Your task to perform on an android device: See recent photos Image 0: 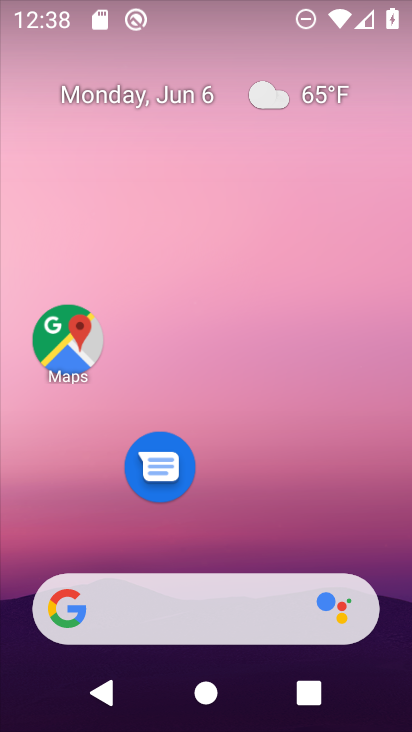
Step 0: drag from (336, 480) to (337, 11)
Your task to perform on an android device: See recent photos Image 1: 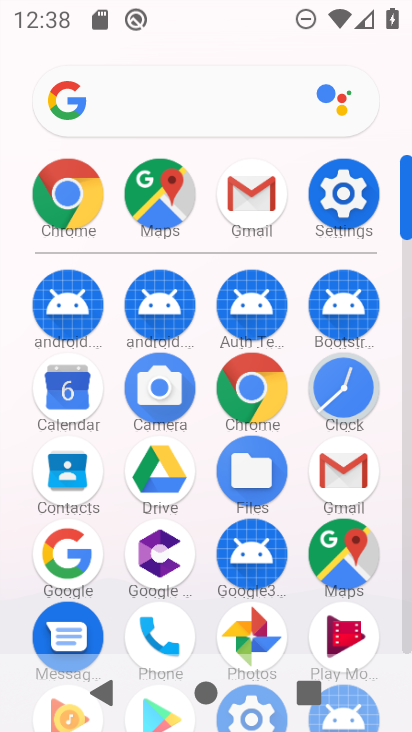
Step 1: drag from (353, 644) to (336, 335)
Your task to perform on an android device: See recent photos Image 2: 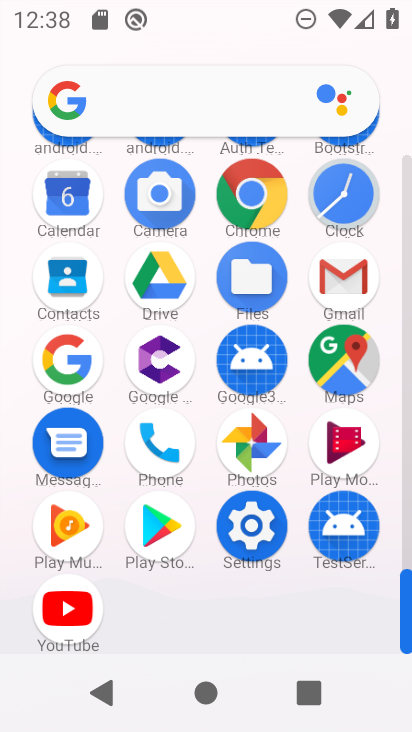
Step 2: click (257, 460)
Your task to perform on an android device: See recent photos Image 3: 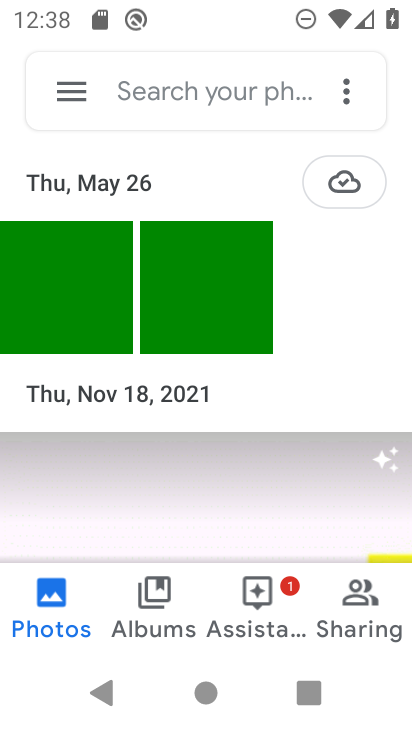
Step 3: task complete